Your task to perform on an android device: Open Google Chrome Image 0: 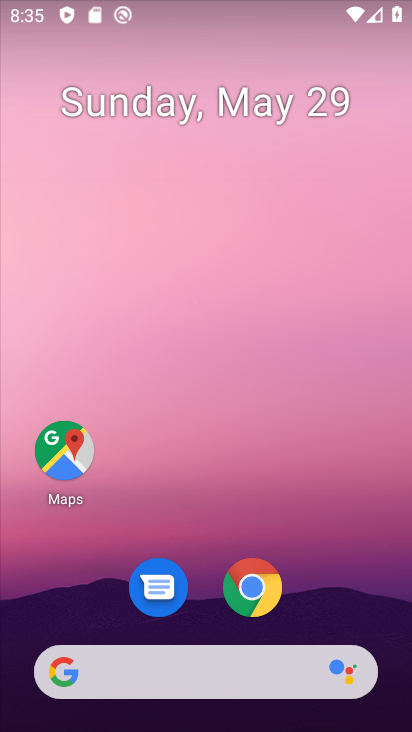
Step 0: click (257, 594)
Your task to perform on an android device: Open Google Chrome Image 1: 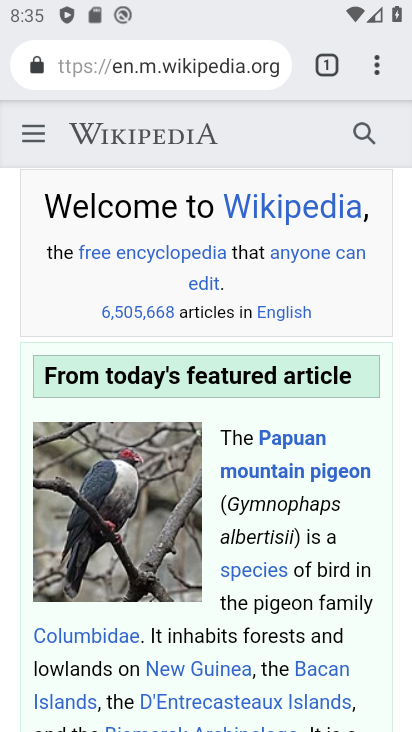
Step 1: task complete